Your task to perform on an android device: Open Reddit.com Image 0: 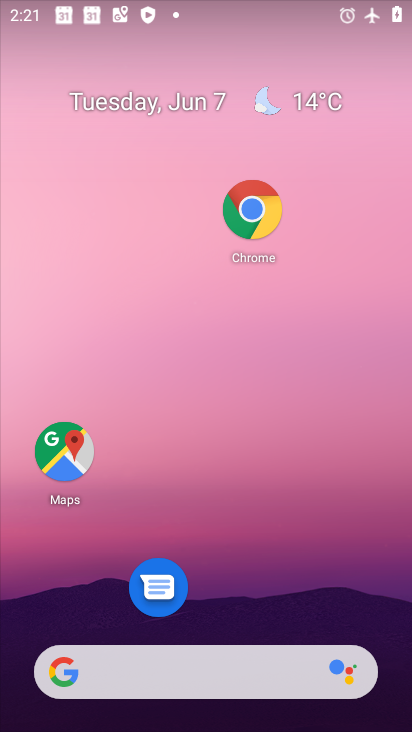
Step 0: drag from (232, 641) to (179, 7)
Your task to perform on an android device: Open Reddit.com Image 1: 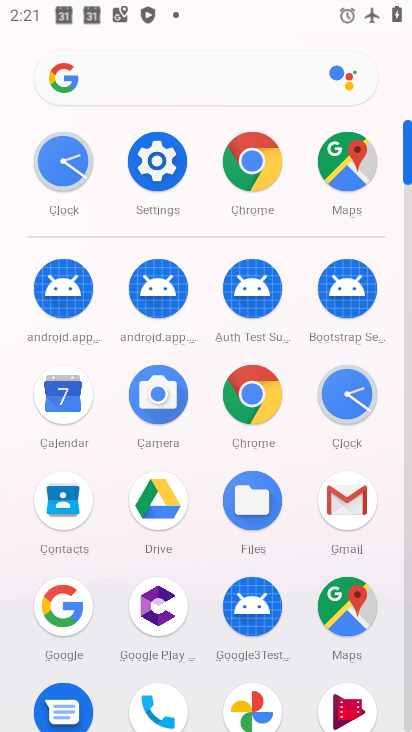
Step 1: click (247, 388)
Your task to perform on an android device: Open Reddit.com Image 2: 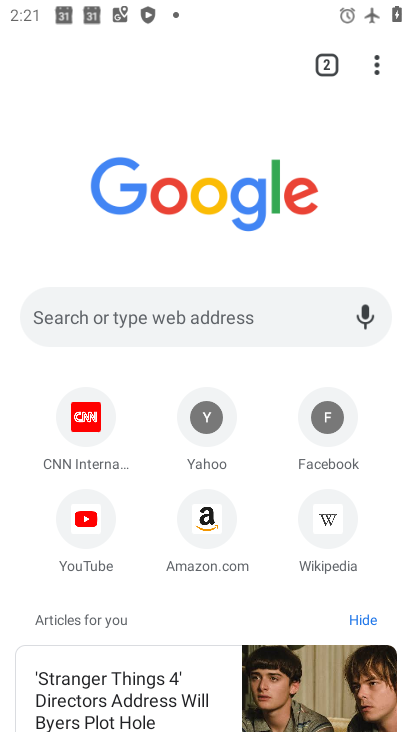
Step 2: click (225, 291)
Your task to perform on an android device: Open Reddit.com Image 3: 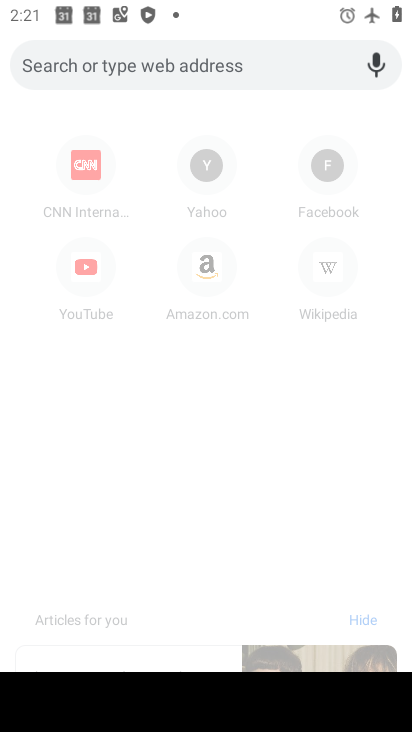
Step 3: type "reddit"
Your task to perform on an android device: Open Reddit.com Image 4: 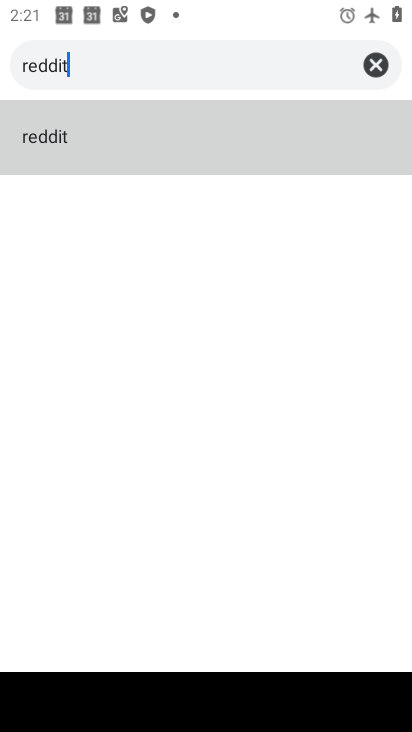
Step 4: task complete